Your task to perform on an android device: Open Amazon Image 0: 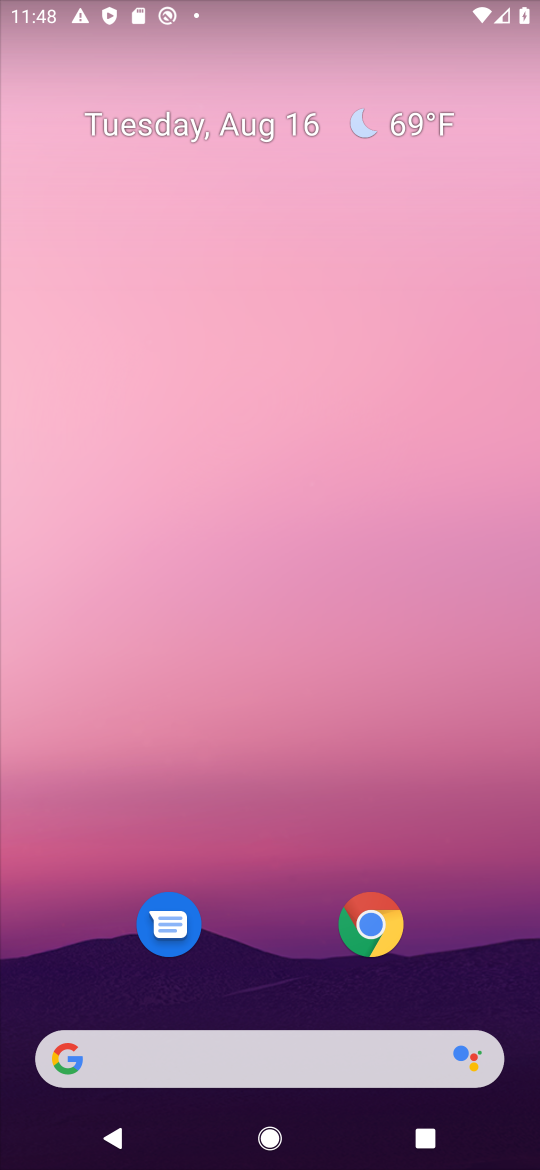
Step 0: click (372, 926)
Your task to perform on an android device: Open Amazon Image 1: 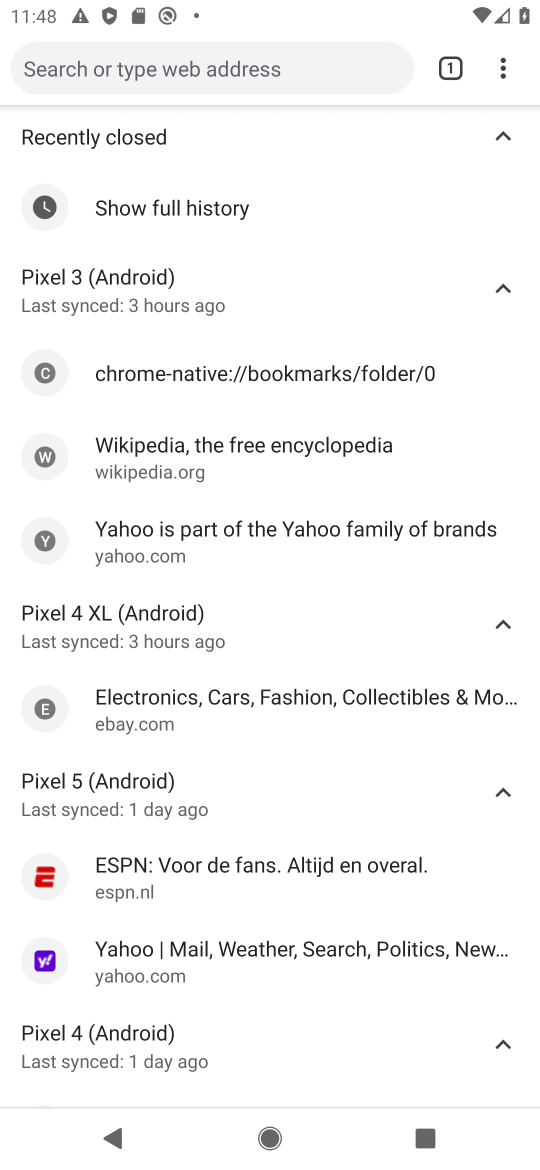
Step 1: click (459, 68)
Your task to perform on an android device: Open Amazon Image 2: 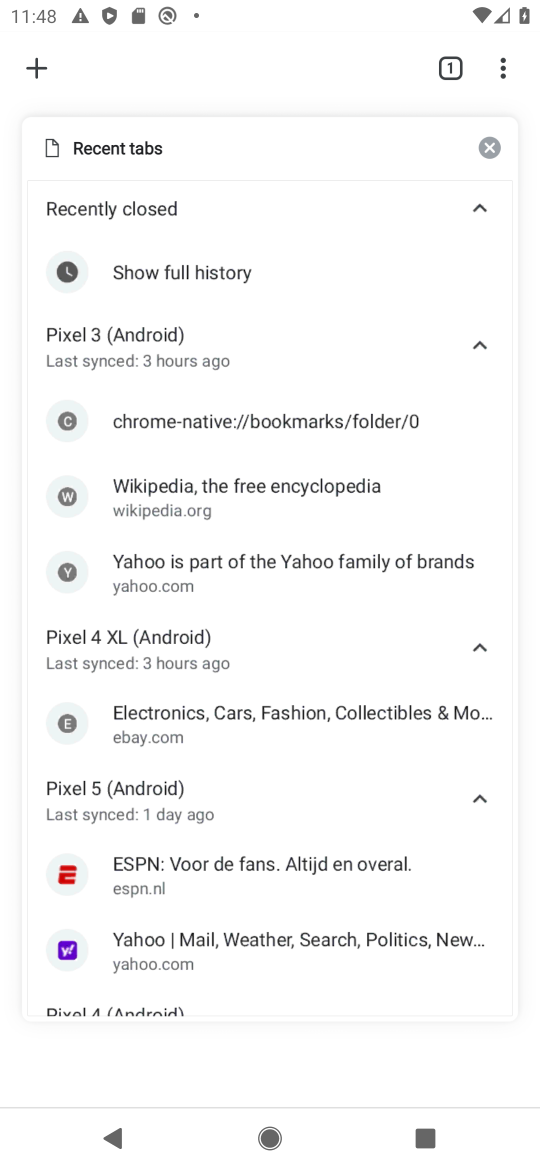
Step 2: click (35, 68)
Your task to perform on an android device: Open Amazon Image 3: 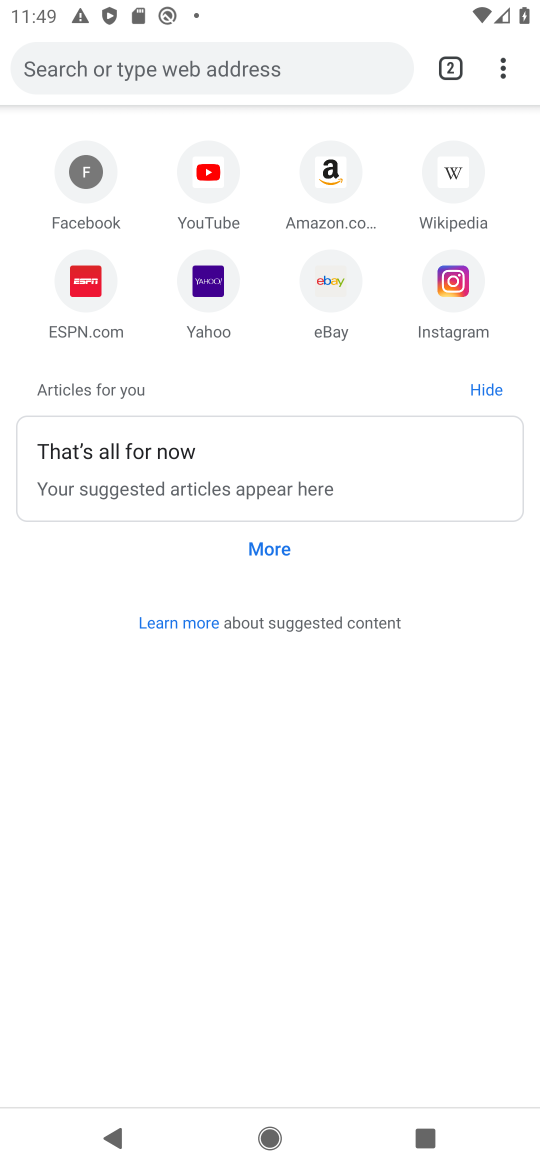
Step 3: click (324, 185)
Your task to perform on an android device: Open Amazon Image 4: 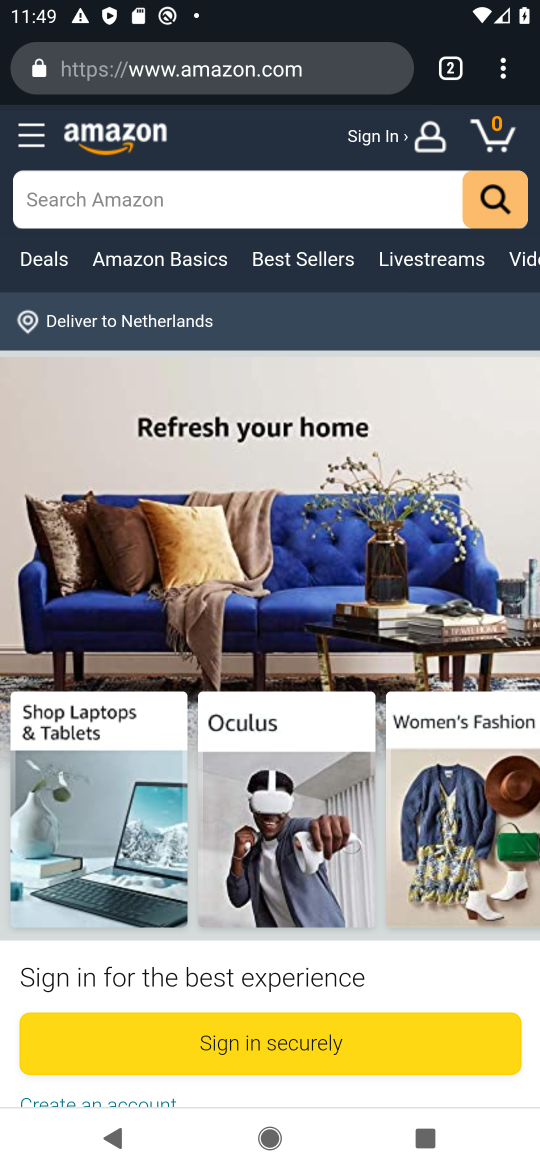
Step 4: task complete